Your task to perform on an android device: toggle javascript in the chrome app Image 0: 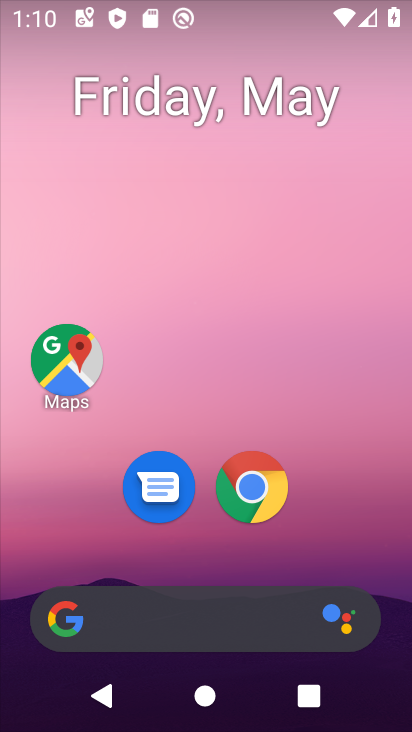
Step 0: click (256, 482)
Your task to perform on an android device: toggle javascript in the chrome app Image 1: 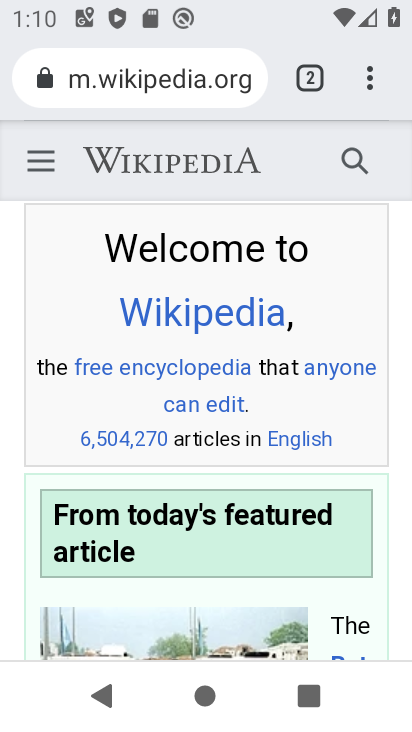
Step 1: click (374, 74)
Your task to perform on an android device: toggle javascript in the chrome app Image 2: 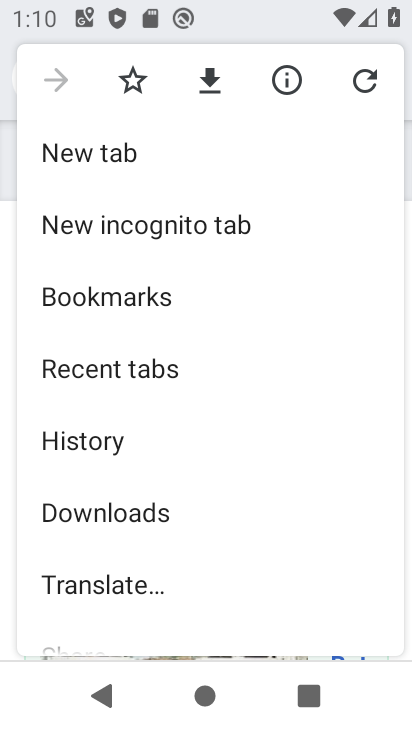
Step 2: drag from (94, 620) to (136, 199)
Your task to perform on an android device: toggle javascript in the chrome app Image 3: 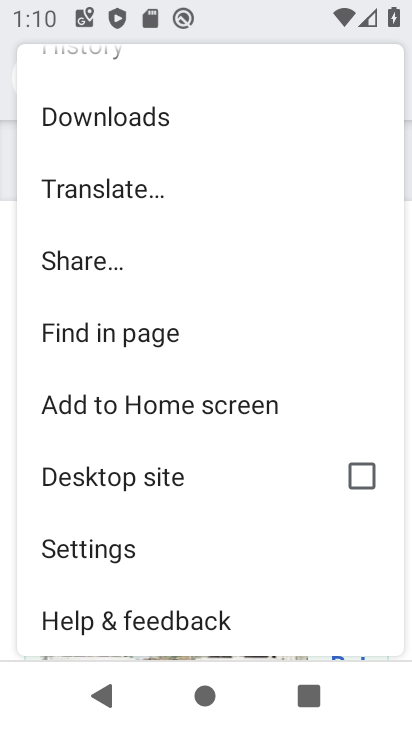
Step 3: click (154, 558)
Your task to perform on an android device: toggle javascript in the chrome app Image 4: 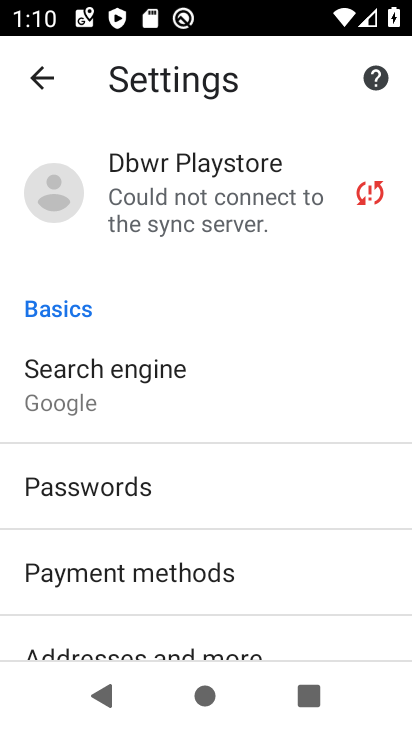
Step 4: drag from (132, 610) to (195, 221)
Your task to perform on an android device: toggle javascript in the chrome app Image 5: 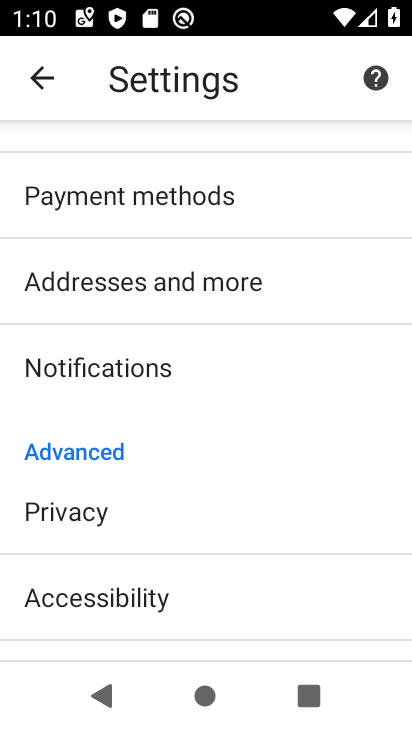
Step 5: drag from (120, 621) to (177, 141)
Your task to perform on an android device: toggle javascript in the chrome app Image 6: 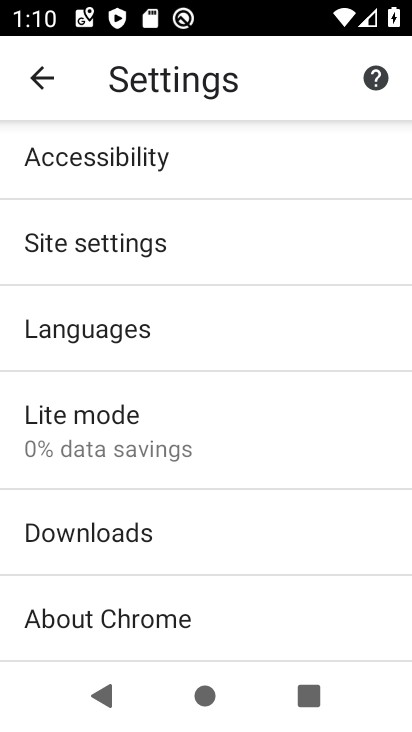
Step 6: click (140, 243)
Your task to perform on an android device: toggle javascript in the chrome app Image 7: 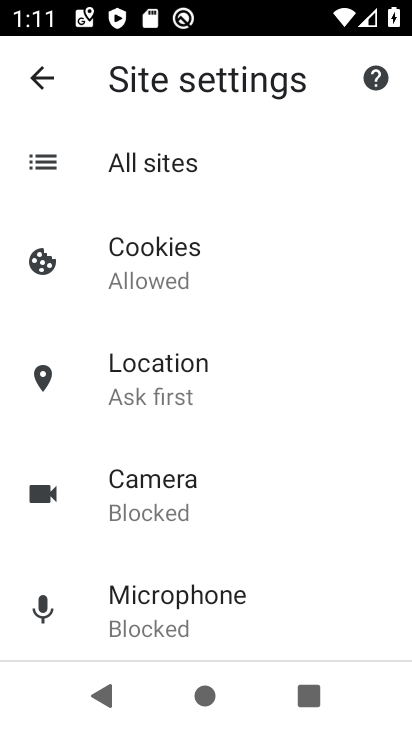
Step 7: drag from (155, 598) to (189, 164)
Your task to perform on an android device: toggle javascript in the chrome app Image 8: 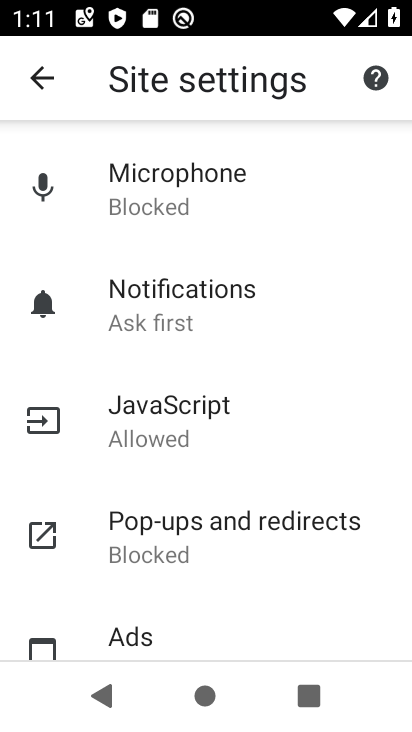
Step 8: click (196, 443)
Your task to perform on an android device: toggle javascript in the chrome app Image 9: 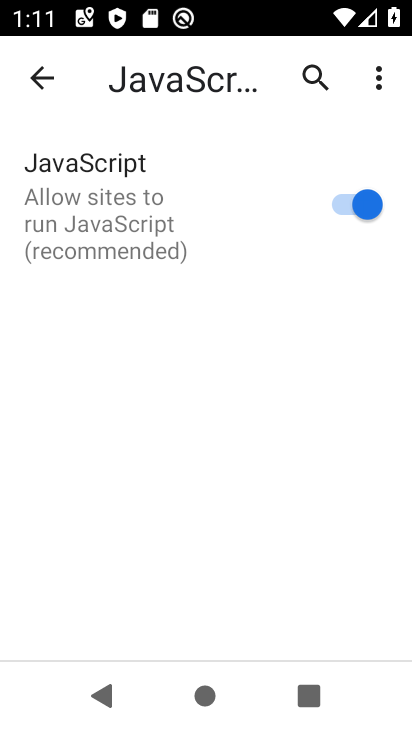
Step 9: click (360, 216)
Your task to perform on an android device: toggle javascript in the chrome app Image 10: 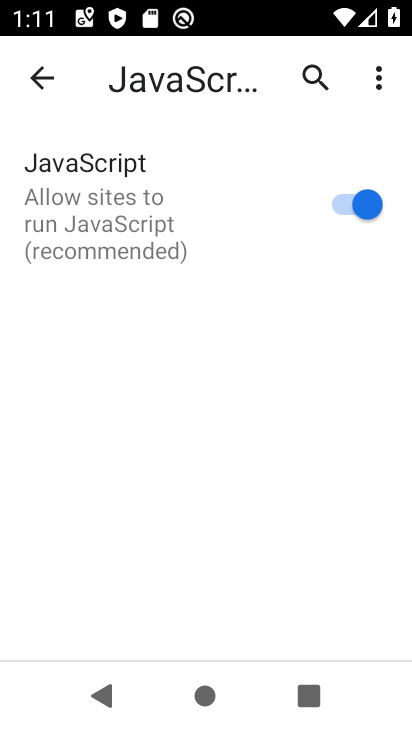
Step 10: click (360, 216)
Your task to perform on an android device: toggle javascript in the chrome app Image 11: 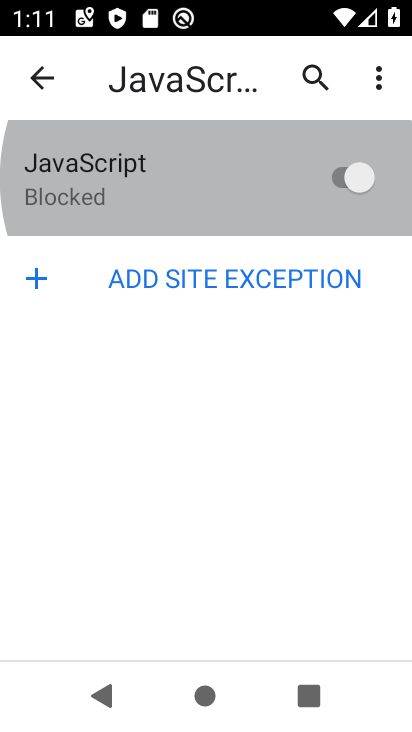
Step 11: click (360, 216)
Your task to perform on an android device: toggle javascript in the chrome app Image 12: 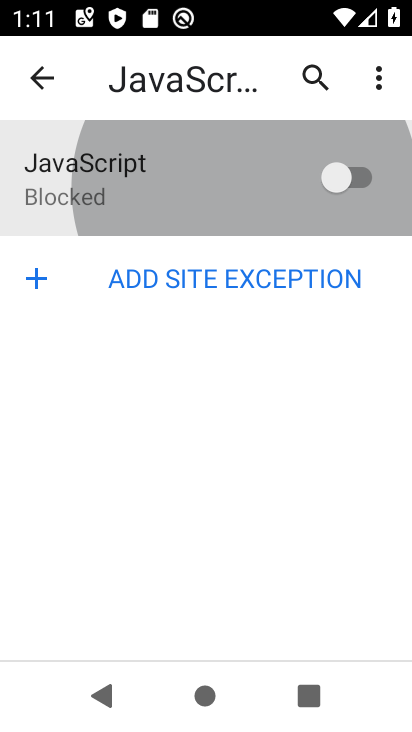
Step 12: click (360, 216)
Your task to perform on an android device: toggle javascript in the chrome app Image 13: 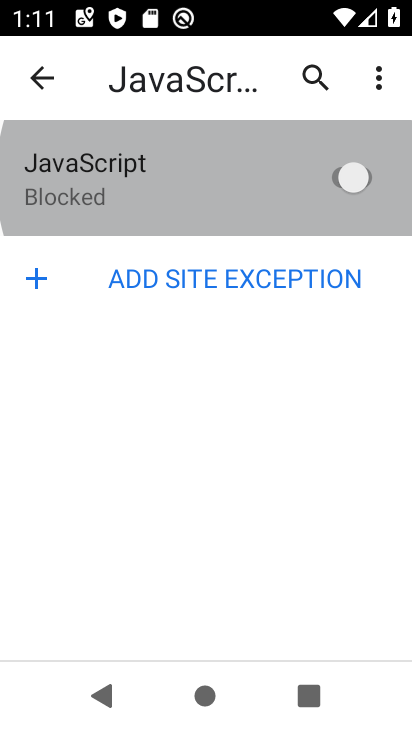
Step 13: click (360, 216)
Your task to perform on an android device: toggle javascript in the chrome app Image 14: 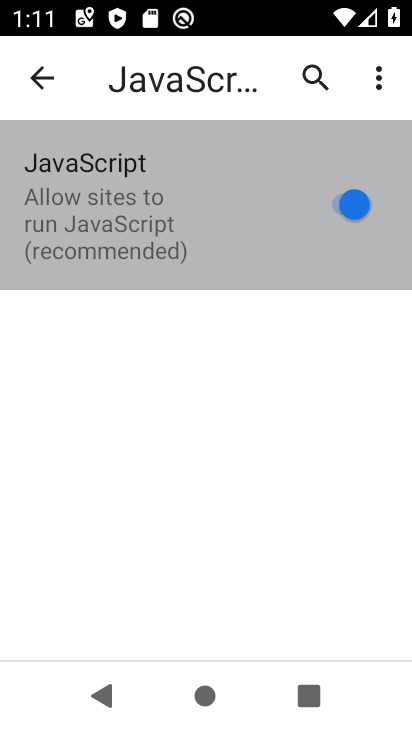
Step 14: click (360, 216)
Your task to perform on an android device: toggle javascript in the chrome app Image 15: 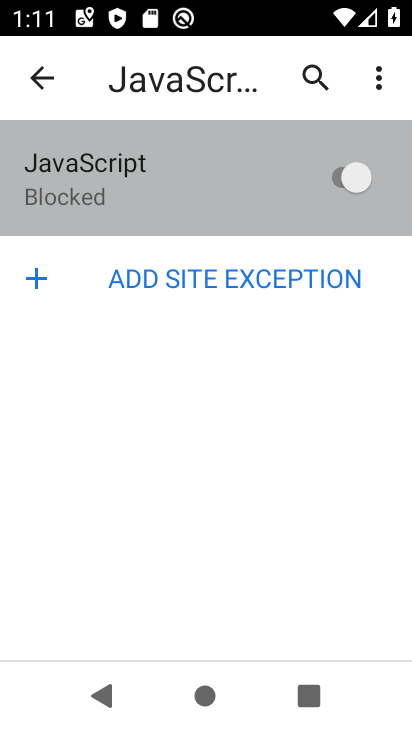
Step 15: click (360, 216)
Your task to perform on an android device: toggle javascript in the chrome app Image 16: 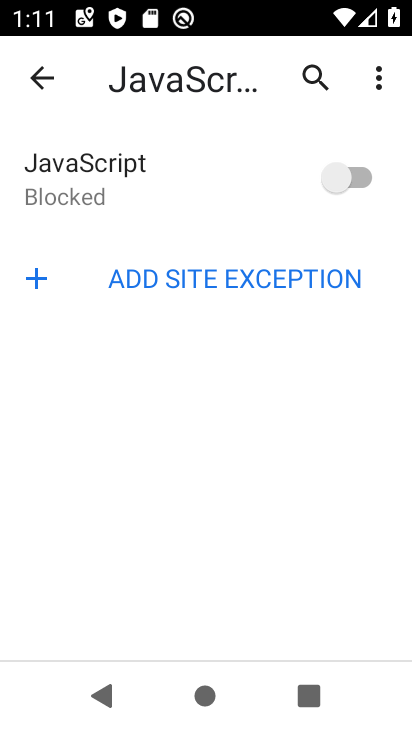
Step 16: task complete